Your task to perform on an android device: Set the phone to "Do not disturb". Image 0: 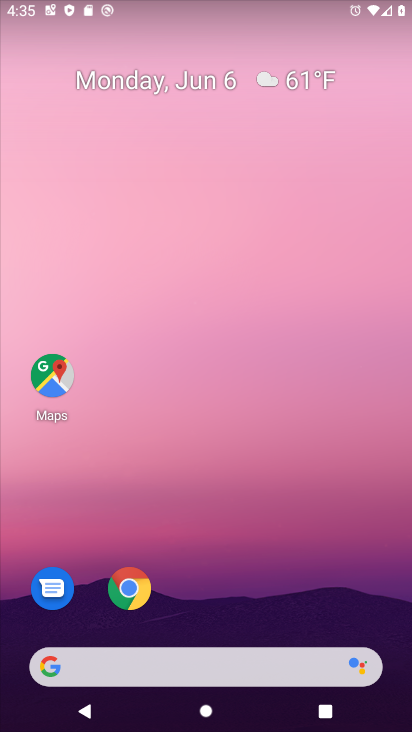
Step 0: drag from (130, 93) to (116, 62)
Your task to perform on an android device: Set the phone to "Do not disturb". Image 1: 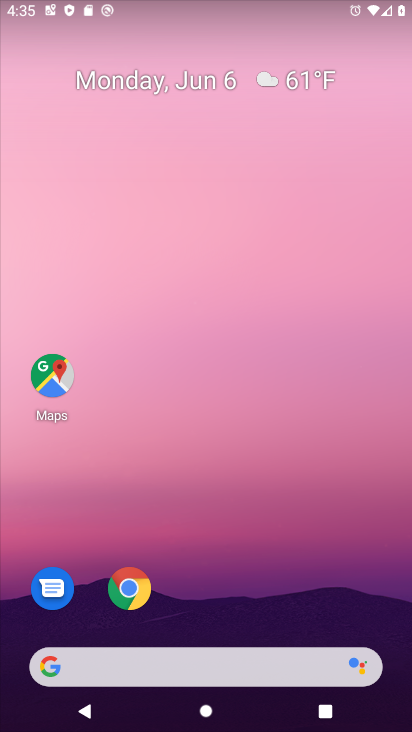
Step 1: drag from (236, 368) to (215, 129)
Your task to perform on an android device: Set the phone to "Do not disturb". Image 2: 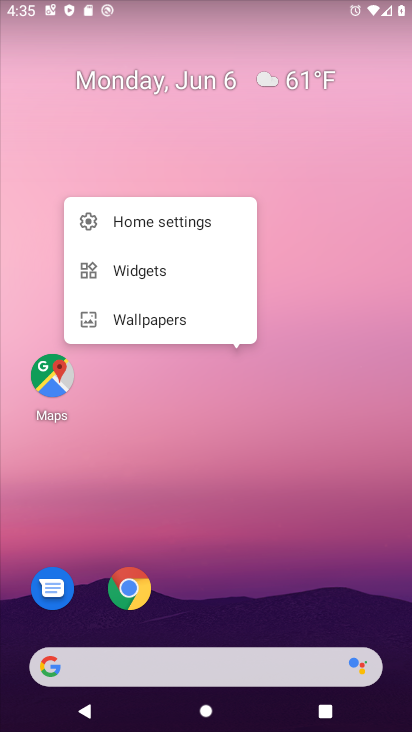
Step 2: click (270, 621)
Your task to perform on an android device: Set the phone to "Do not disturb". Image 3: 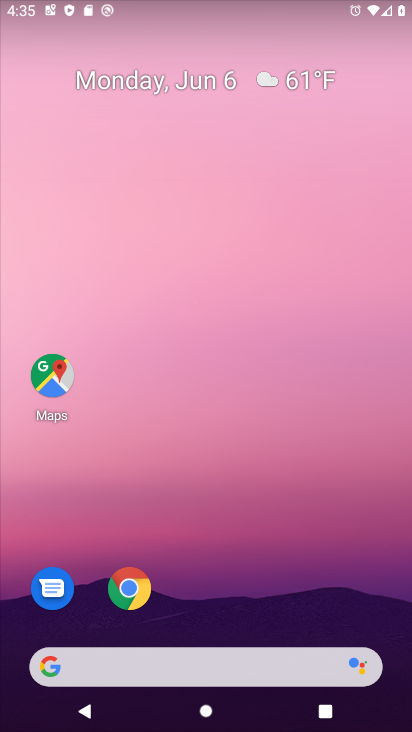
Step 3: drag from (270, 621) to (218, 76)
Your task to perform on an android device: Set the phone to "Do not disturb". Image 4: 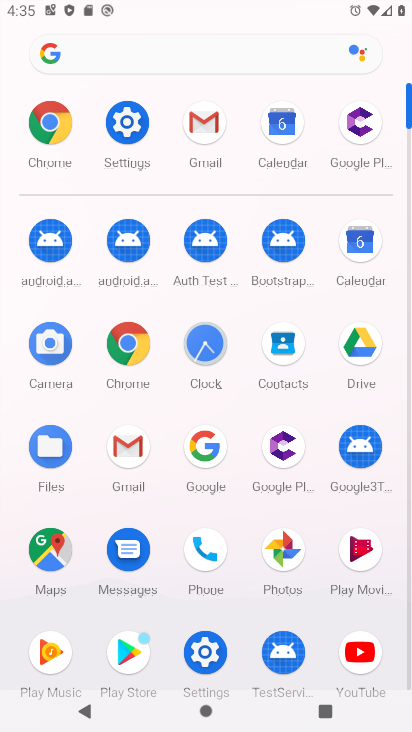
Step 4: click (120, 125)
Your task to perform on an android device: Set the phone to "Do not disturb". Image 5: 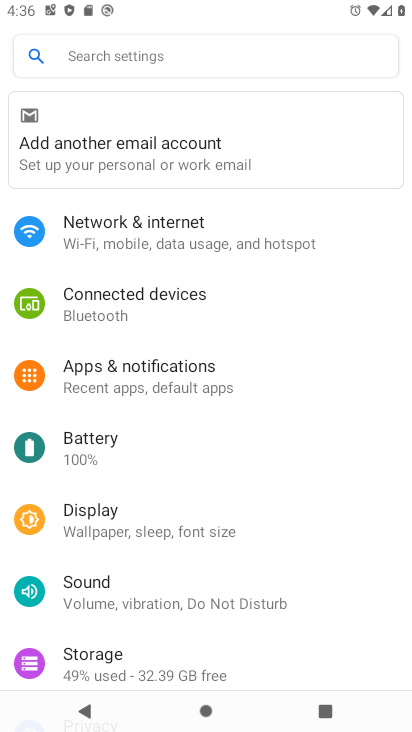
Step 5: click (202, 611)
Your task to perform on an android device: Set the phone to "Do not disturb". Image 6: 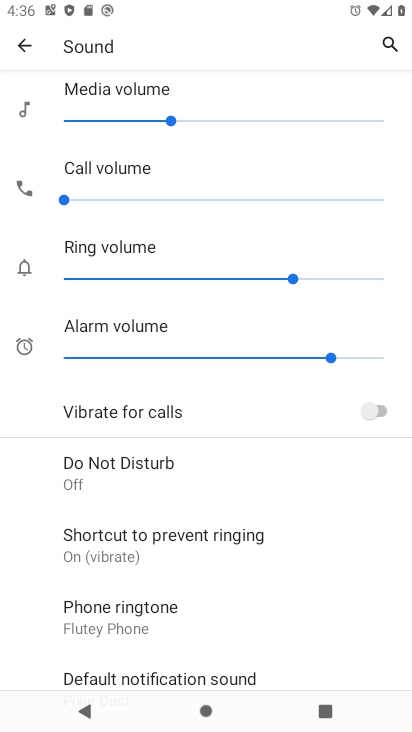
Step 6: click (191, 452)
Your task to perform on an android device: Set the phone to "Do not disturb". Image 7: 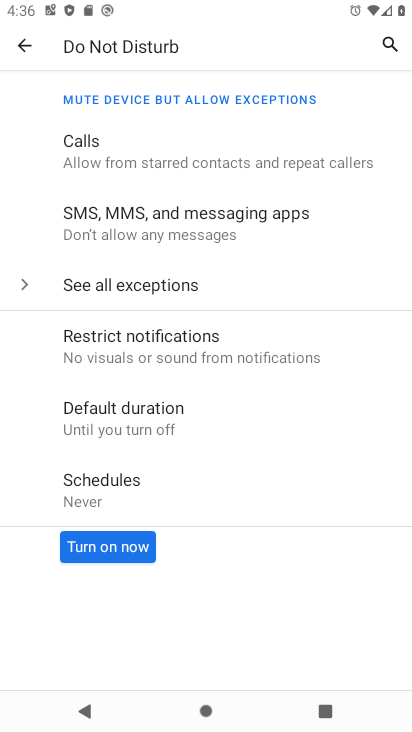
Step 7: click (131, 547)
Your task to perform on an android device: Set the phone to "Do not disturb". Image 8: 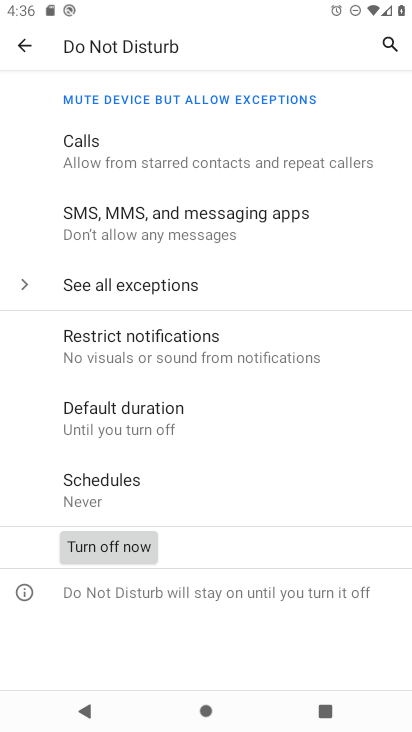
Step 8: task complete